Your task to perform on an android device: change keyboard looks Image 0: 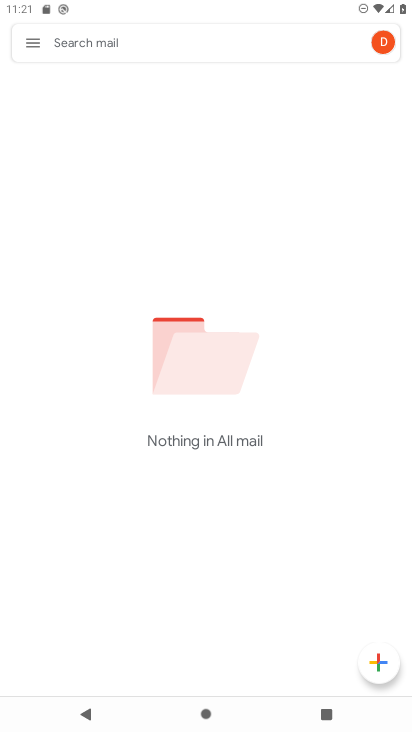
Step 0: press home button
Your task to perform on an android device: change keyboard looks Image 1: 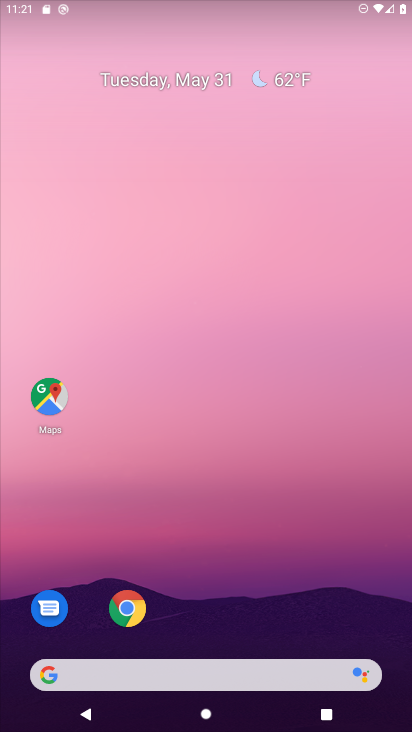
Step 1: drag from (327, 593) to (321, 118)
Your task to perform on an android device: change keyboard looks Image 2: 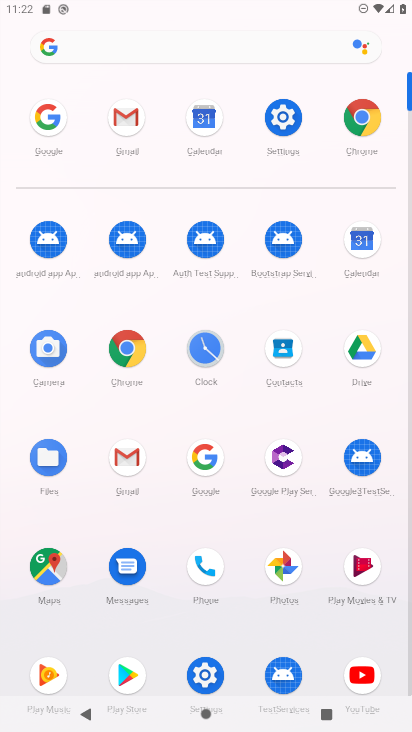
Step 2: click (214, 683)
Your task to perform on an android device: change keyboard looks Image 3: 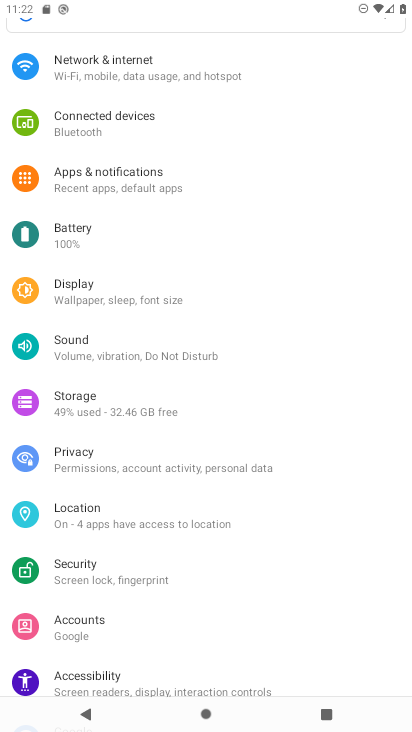
Step 3: drag from (169, 649) to (302, 392)
Your task to perform on an android device: change keyboard looks Image 4: 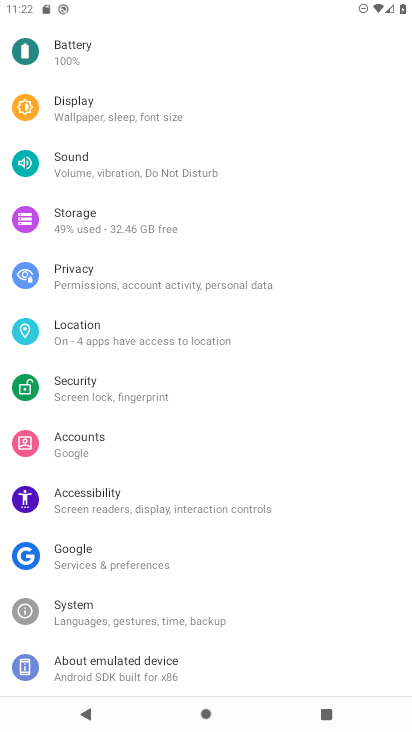
Step 4: click (163, 623)
Your task to perform on an android device: change keyboard looks Image 5: 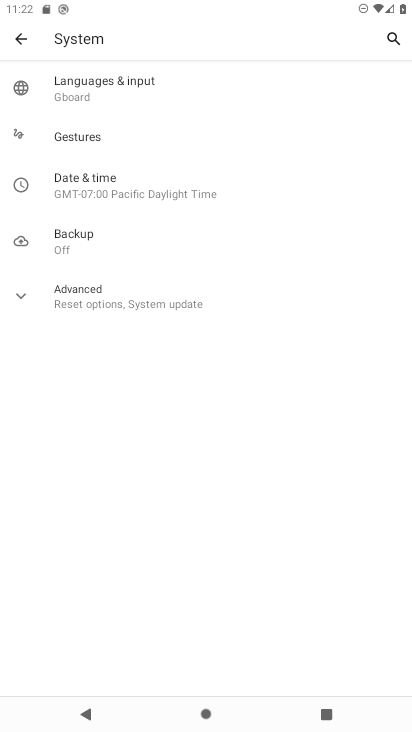
Step 5: click (168, 83)
Your task to perform on an android device: change keyboard looks Image 6: 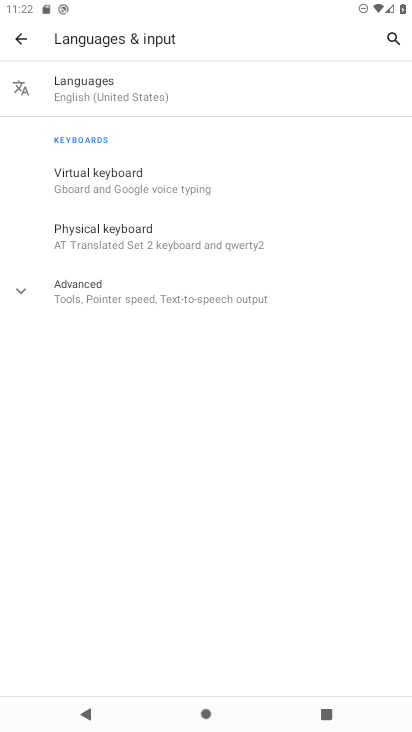
Step 6: click (160, 178)
Your task to perform on an android device: change keyboard looks Image 7: 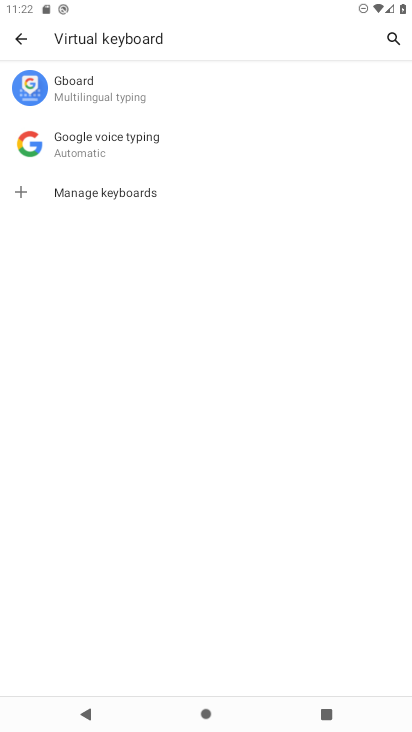
Step 7: click (149, 84)
Your task to perform on an android device: change keyboard looks Image 8: 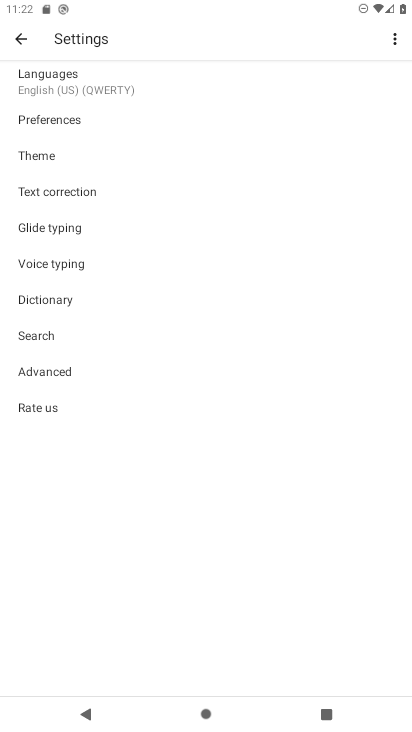
Step 8: click (93, 156)
Your task to perform on an android device: change keyboard looks Image 9: 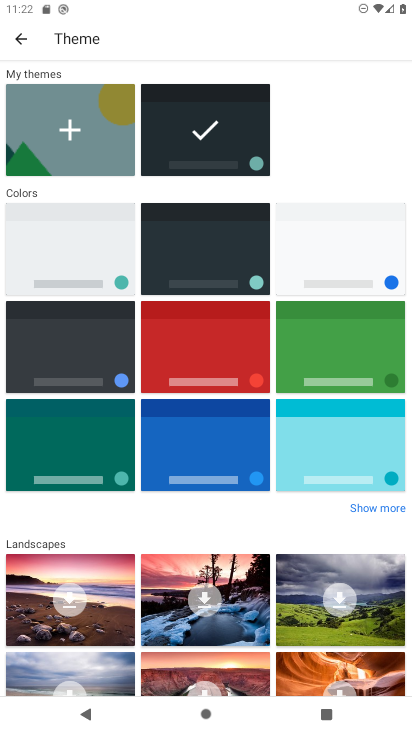
Step 9: click (177, 263)
Your task to perform on an android device: change keyboard looks Image 10: 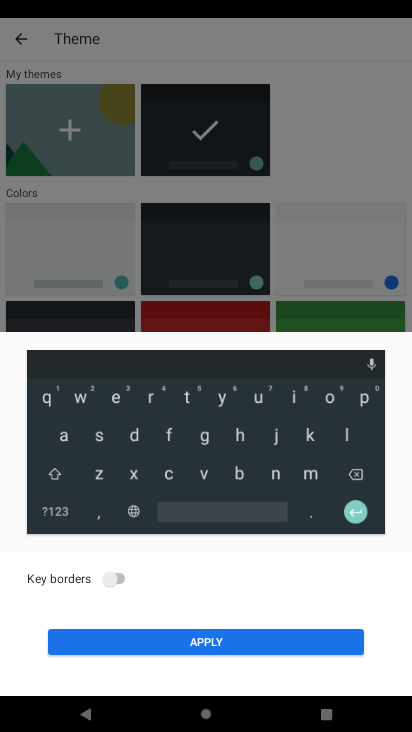
Step 10: click (213, 645)
Your task to perform on an android device: change keyboard looks Image 11: 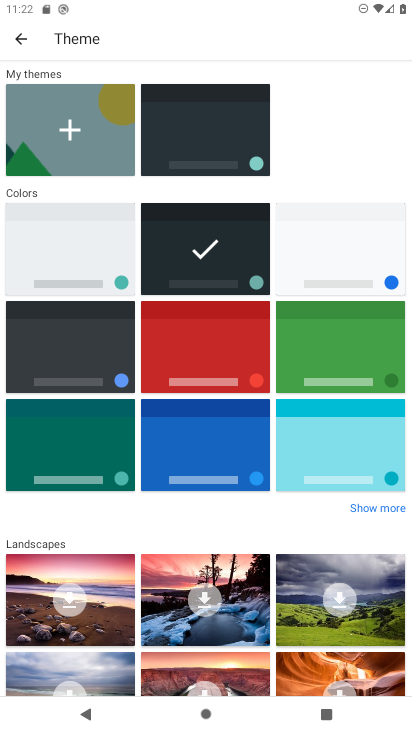
Step 11: task complete